Your task to perform on an android device: Go to Amazon Image 0: 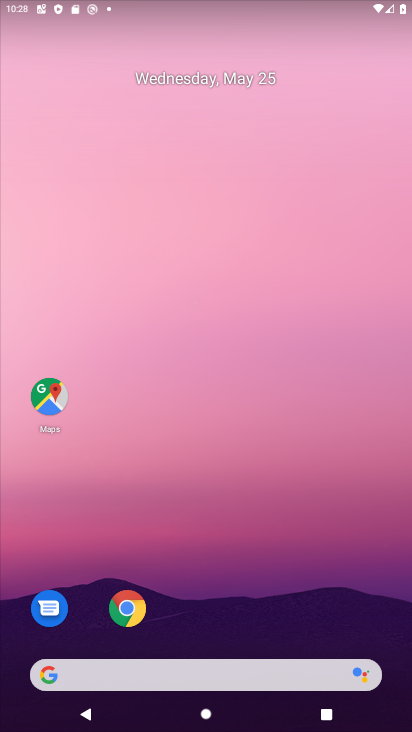
Step 0: click (128, 609)
Your task to perform on an android device: Go to Amazon Image 1: 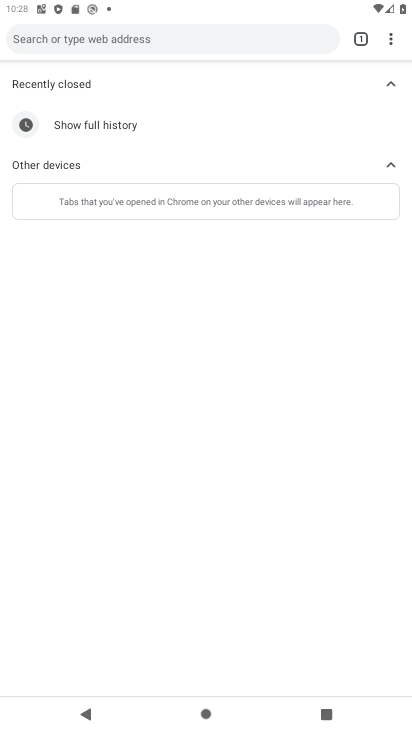
Step 1: click (199, 43)
Your task to perform on an android device: Go to Amazon Image 2: 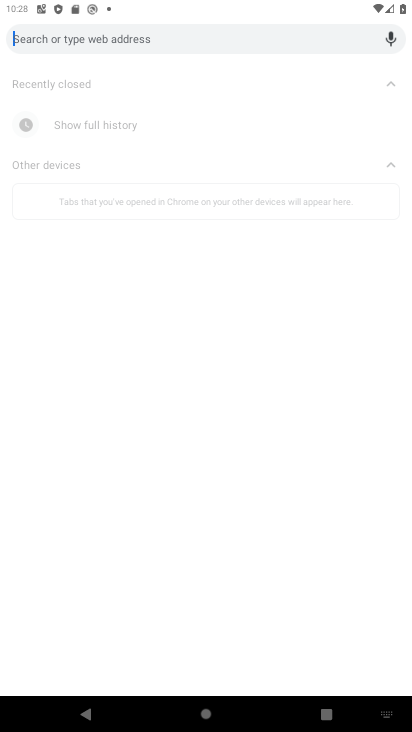
Step 2: type "Amazon"
Your task to perform on an android device: Go to Amazon Image 3: 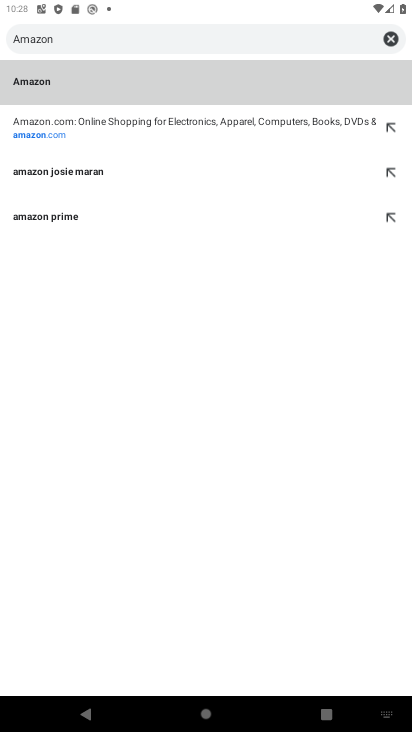
Step 3: click (54, 84)
Your task to perform on an android device: Go to Amazon Image 4: 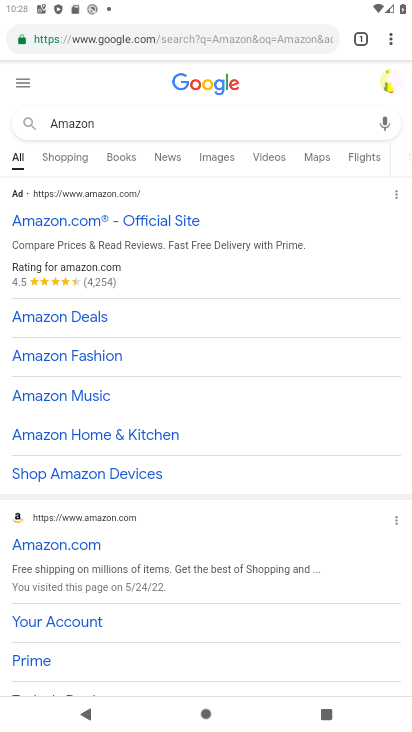
Step 4: click (168, 217)
Your task to perform on an android device: Go to Amazon Image 5: 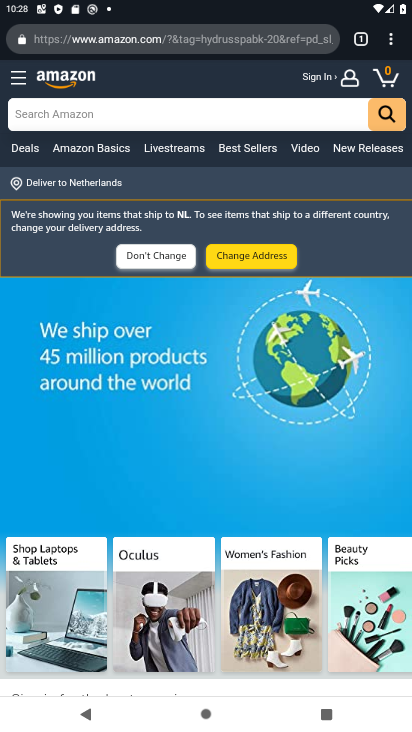
Step 5: task complete